Your task to perform on an android device: Open accessibility settings Image 0: 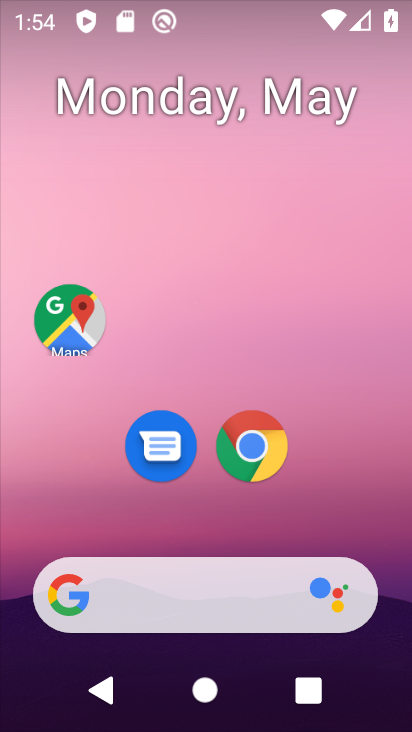
Step 0: press home button
Your task to perform on an android device: Open accessibility settings Image 1: 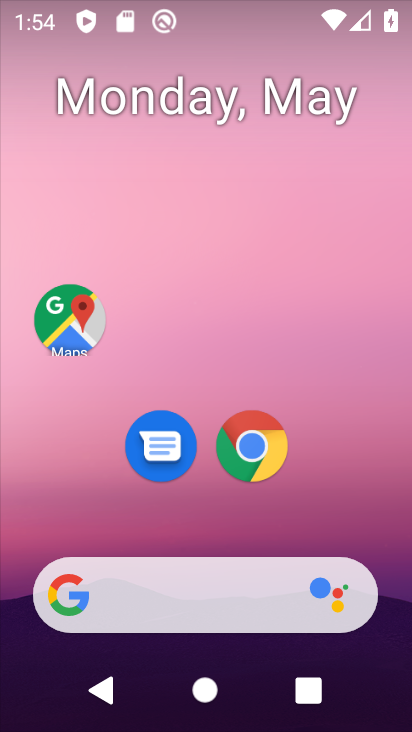
Step 1: drag from (374, 525) to (366, 133)
Your task to perform on an android device: Open accessibility settings Image 2: 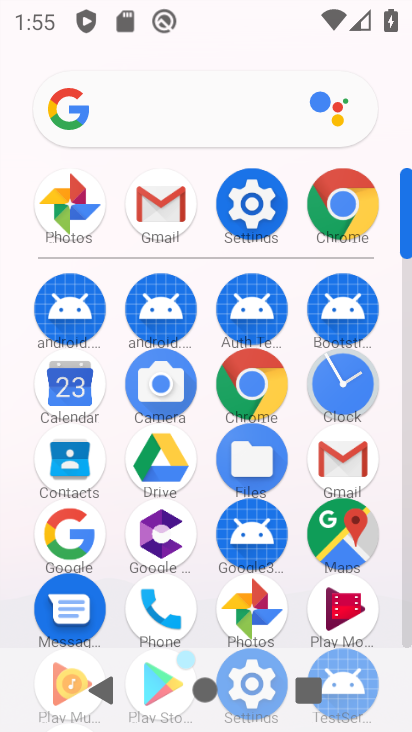
Step 2: click (267, 196)
Your task to perform on an android device: Open accessibility settings Image 3: 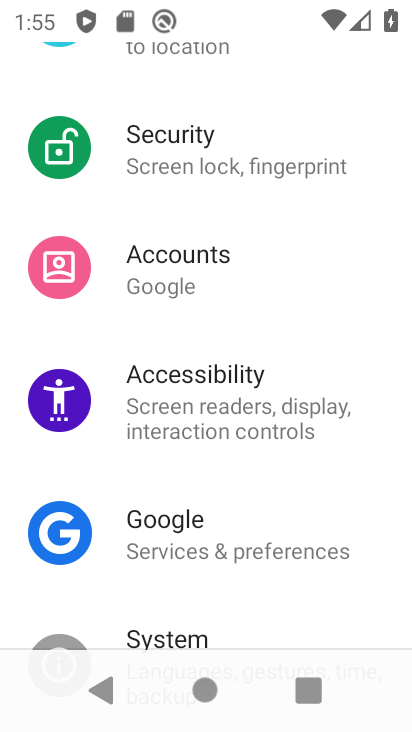
Step 3: click (232, 384)
Your task to perform on an android device: Open accessibility settings Image 4: 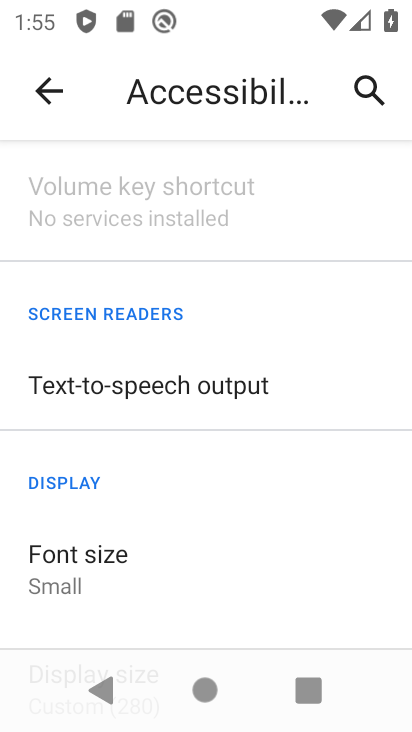
Step 4: task complete